Your task to perform on an android device: Look up the new steph curry shoes Image 0: 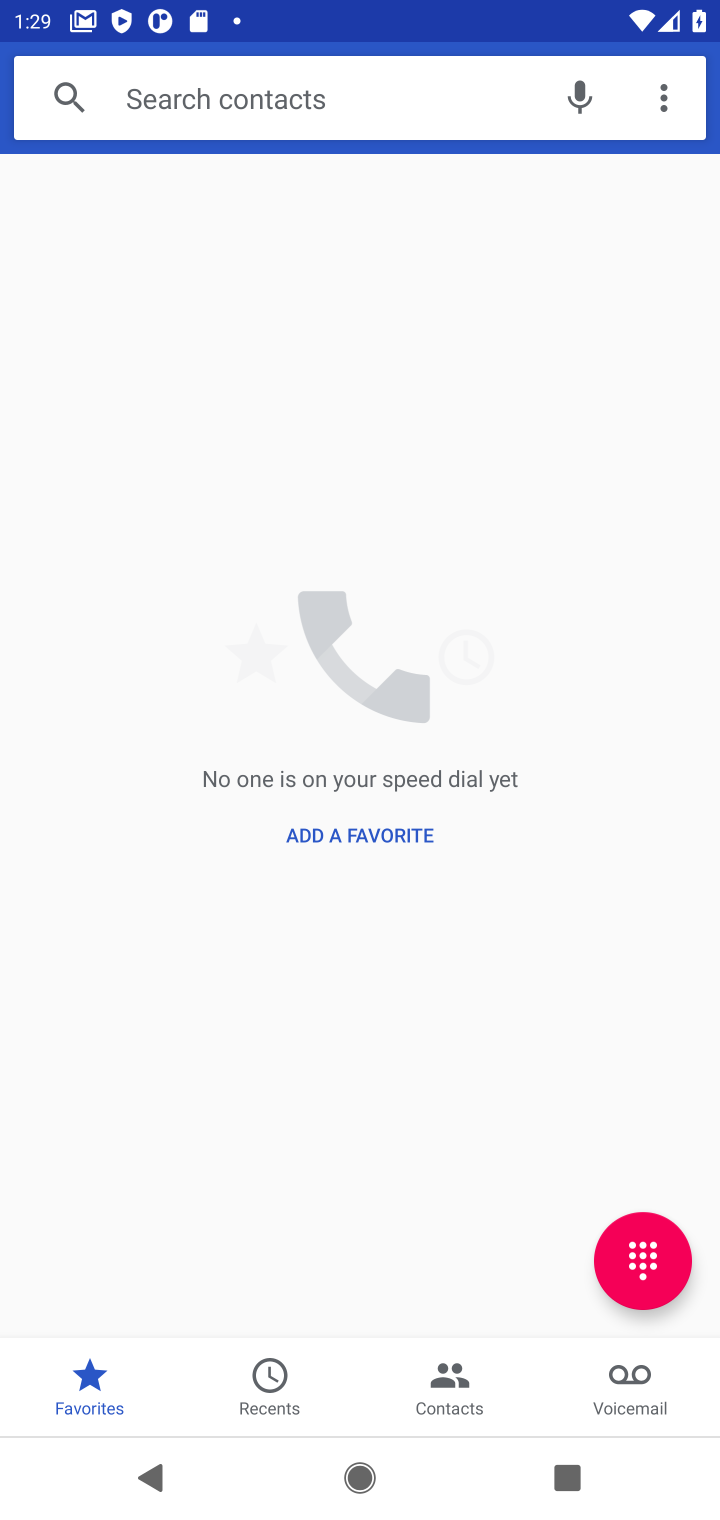
Step 0: press home button
Your task to perform on an android device: Look up the new steph curry shoes Image 1: 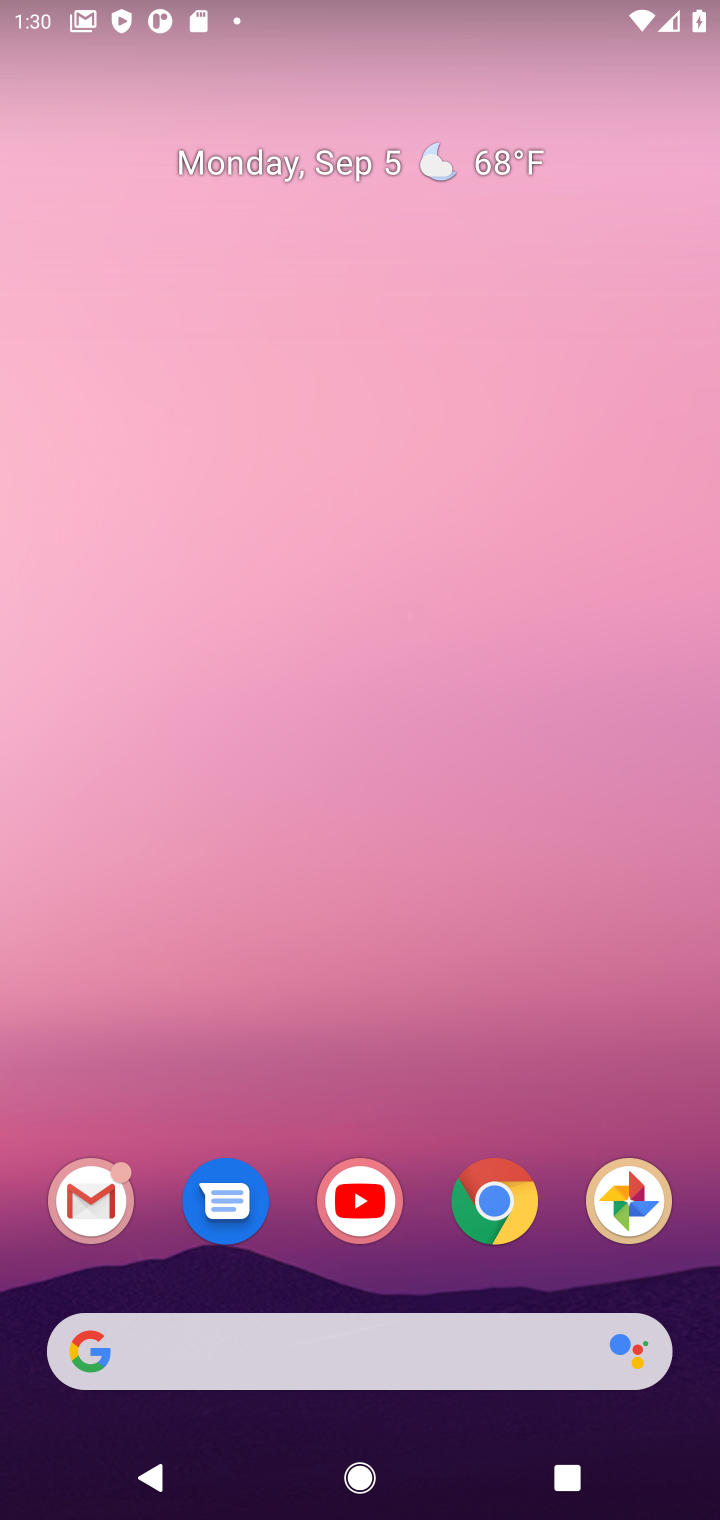
Step 1: click (490, 1193)
Your task to perform on an android device: Look up the new steph curry shoes Image 2: 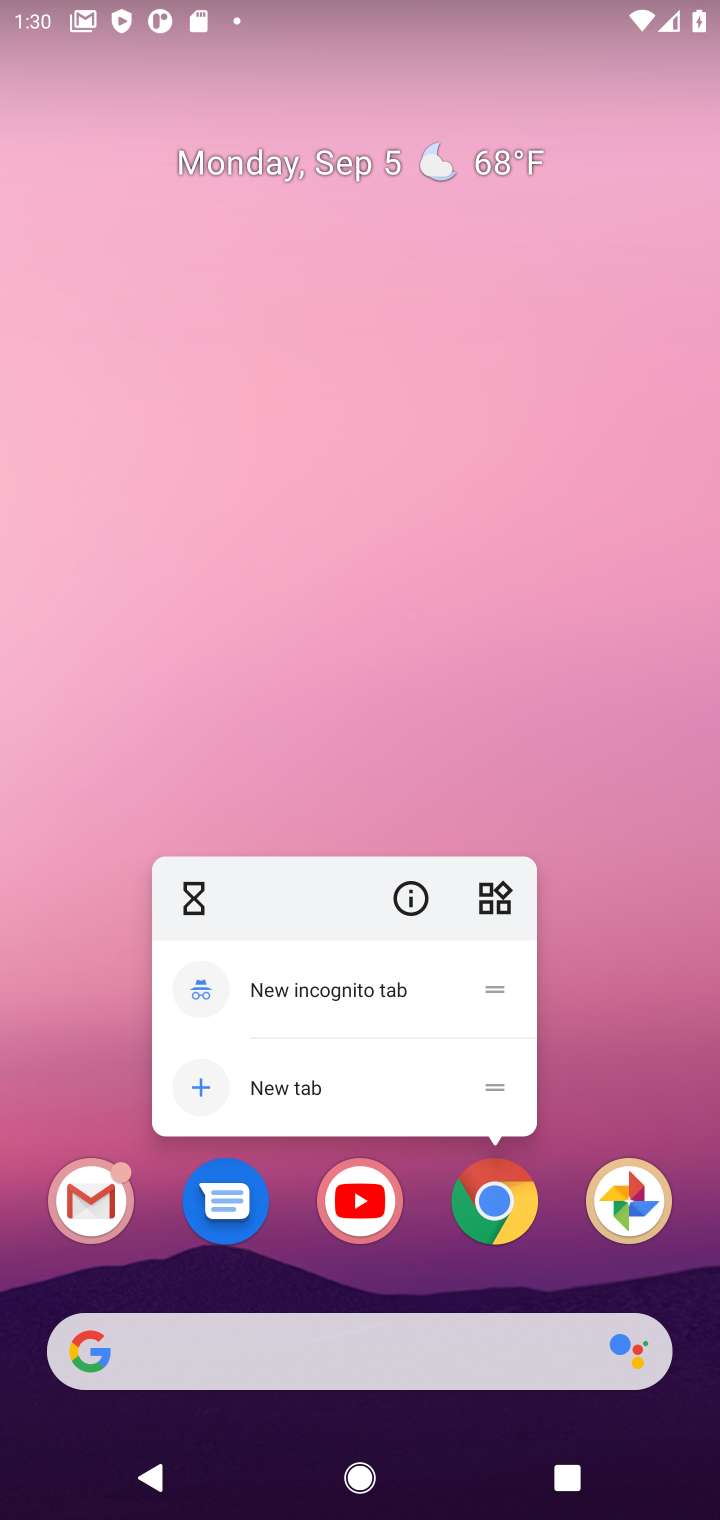
Step 2: click (491, 1192)
Your task to perform on an android device: Look up the new steph curry shoes Image 3: 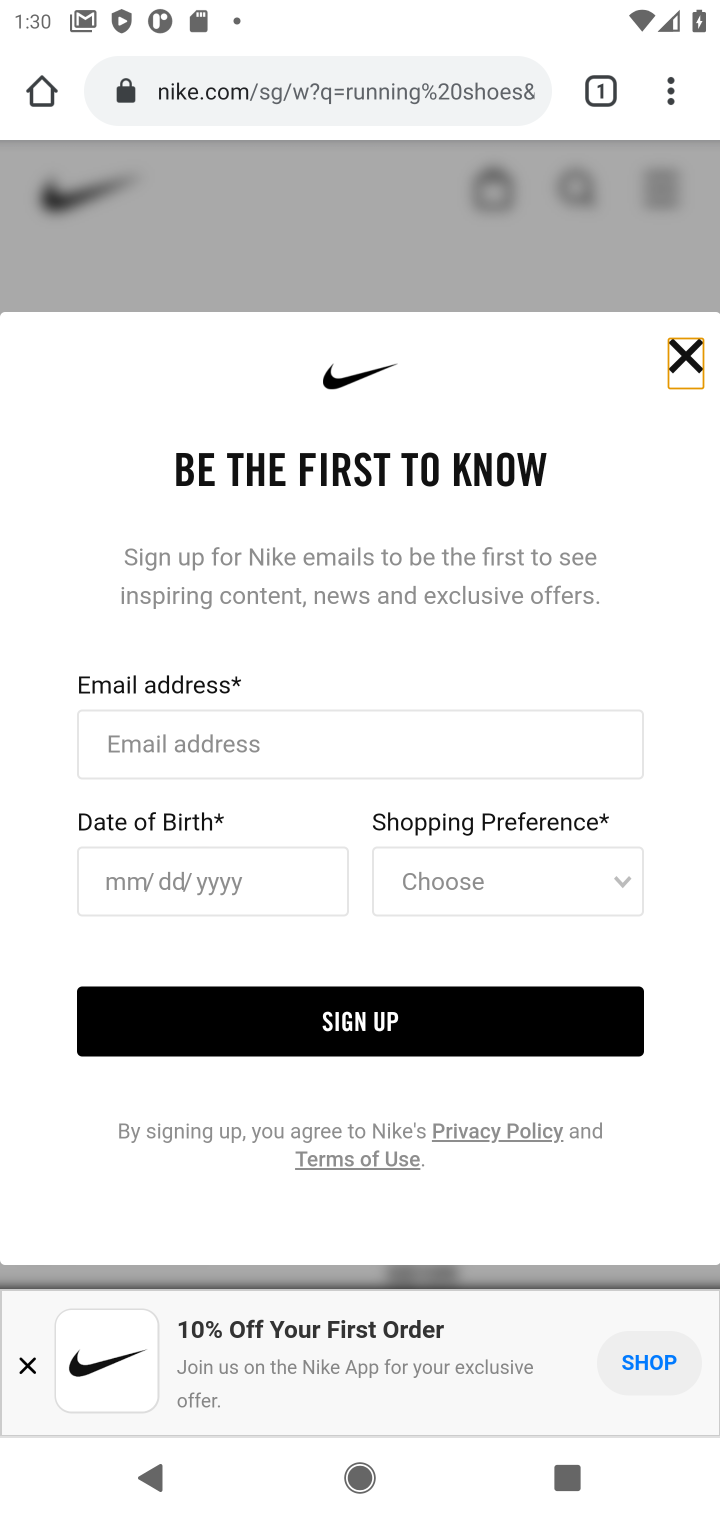
Step 3: click (379, 81)
Your task to perform on an android device: Look up the new steph curry shoes Image 4: 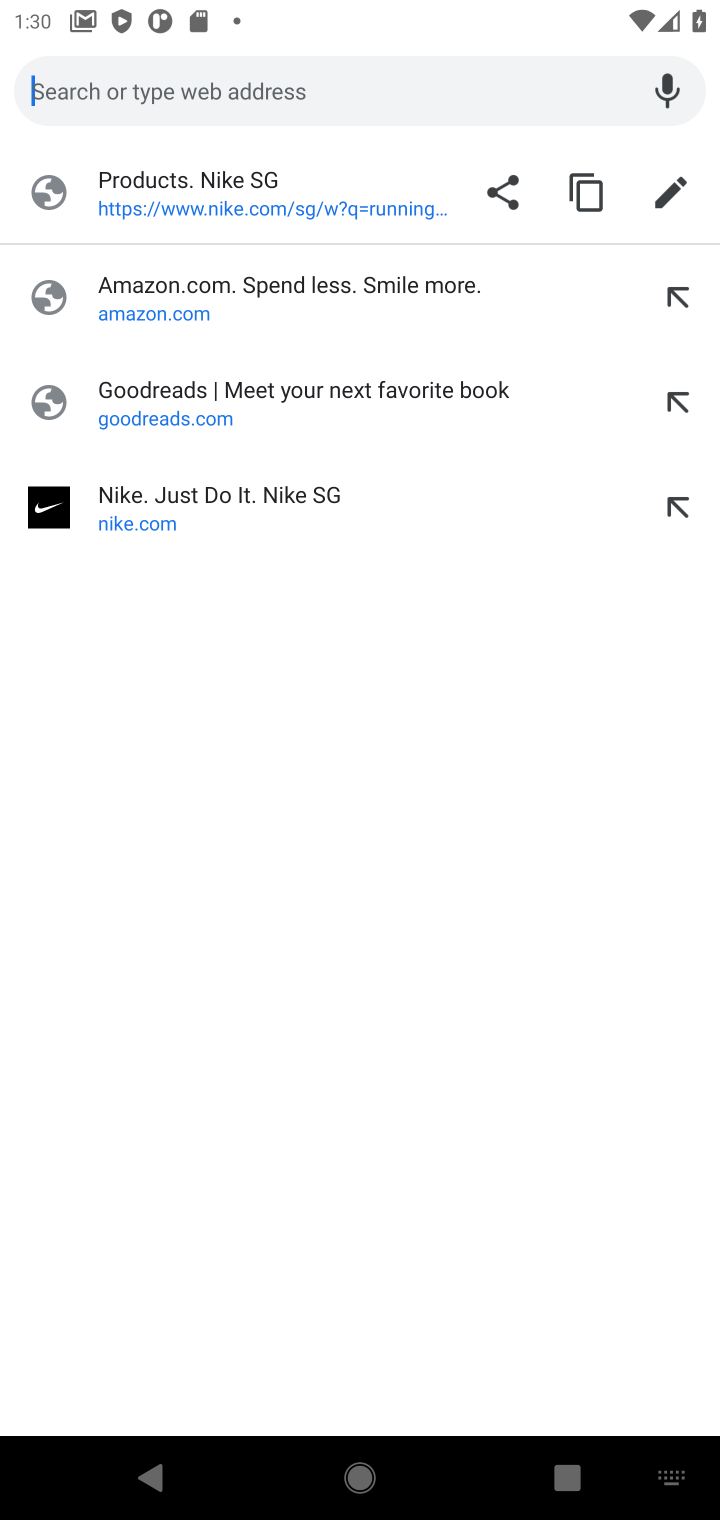
Step 4: type "new steph curry shoes"
Your task to perform on an android device: Look up the new steph curry shoes Image 5: 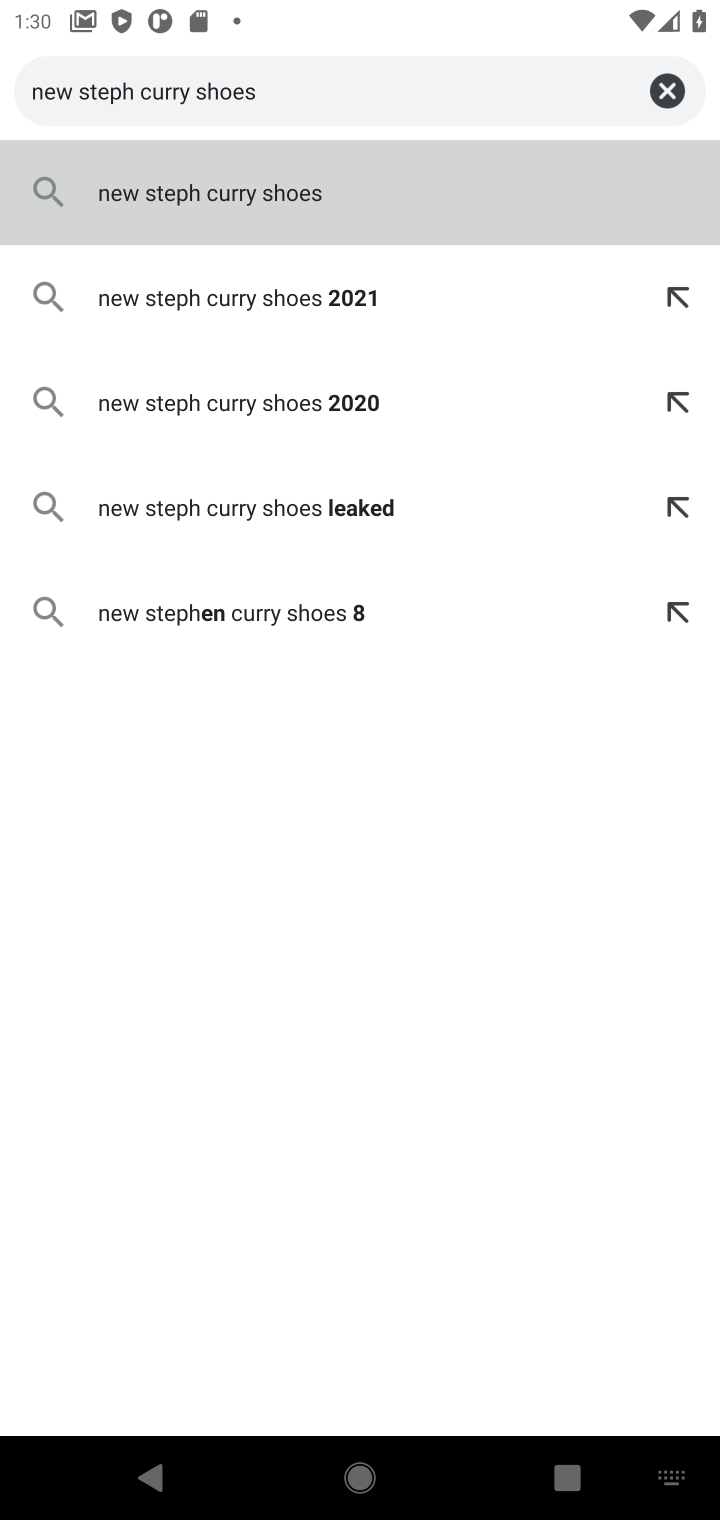
Step 5: press enter
Your task to perform on an android device: Look up the new steph curry shoes Image 6: 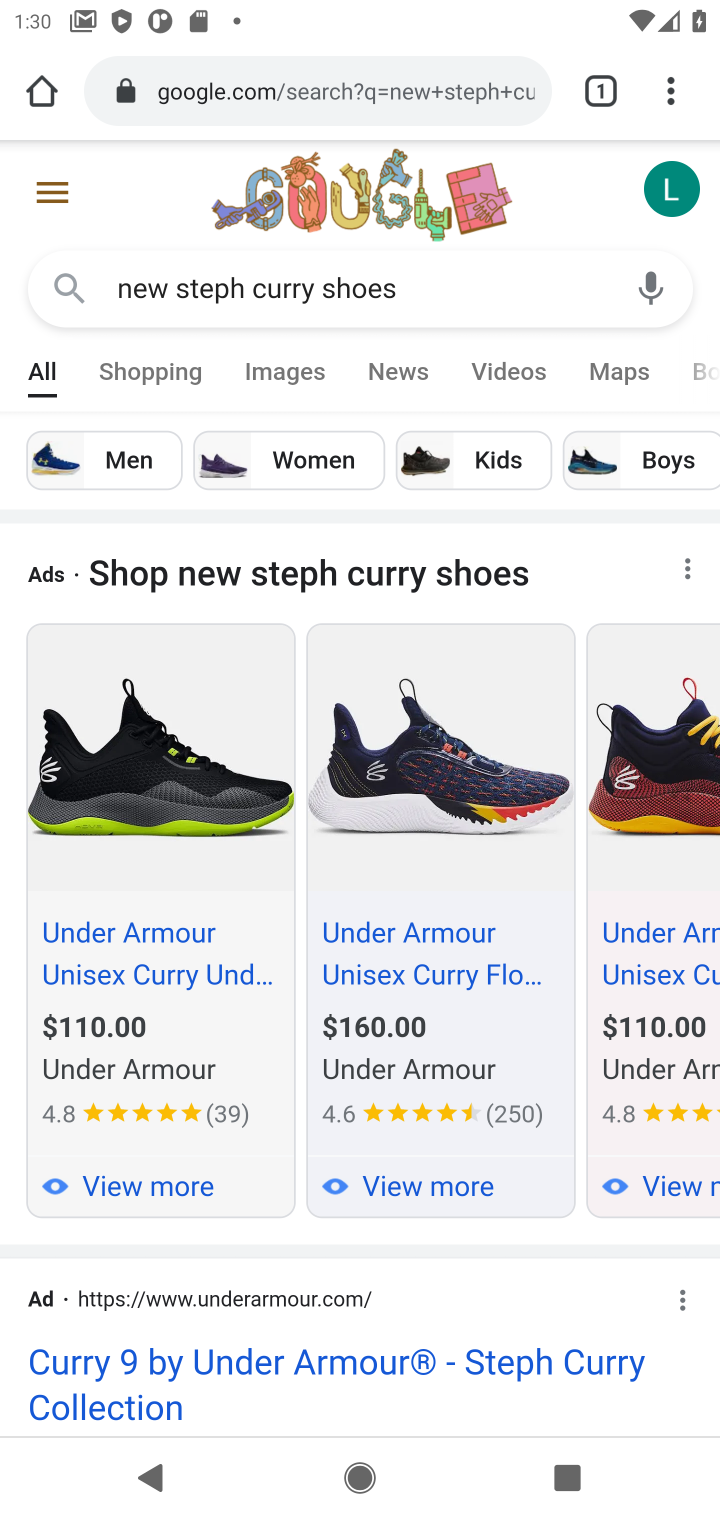
Step 6: drag from (513, 859) to (611, 453)
Your task to perform on an android device: Look up the new steph curry shoes Image 7: 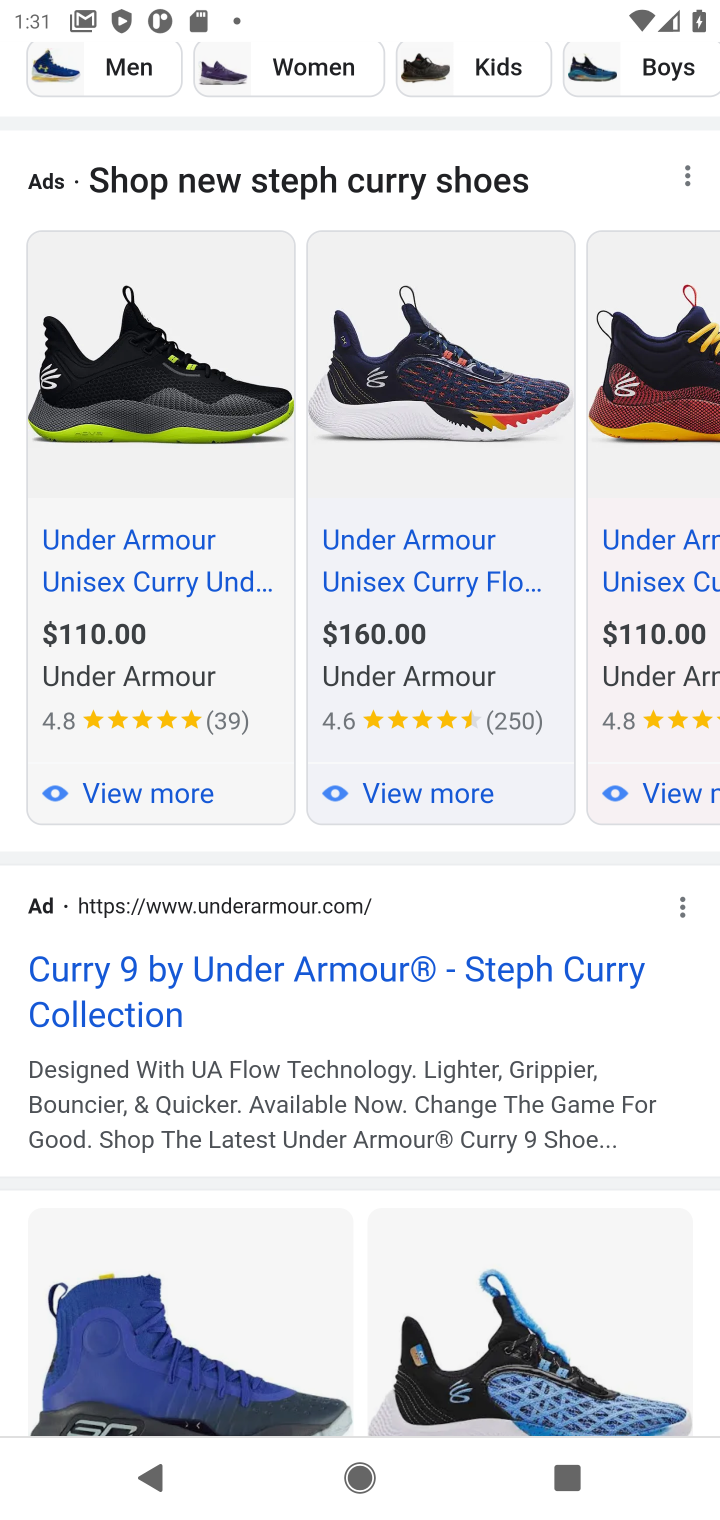
Step 7: click (442, 562)
Your task to perform on an android device: Look up the new steph curry shoes Image 8: 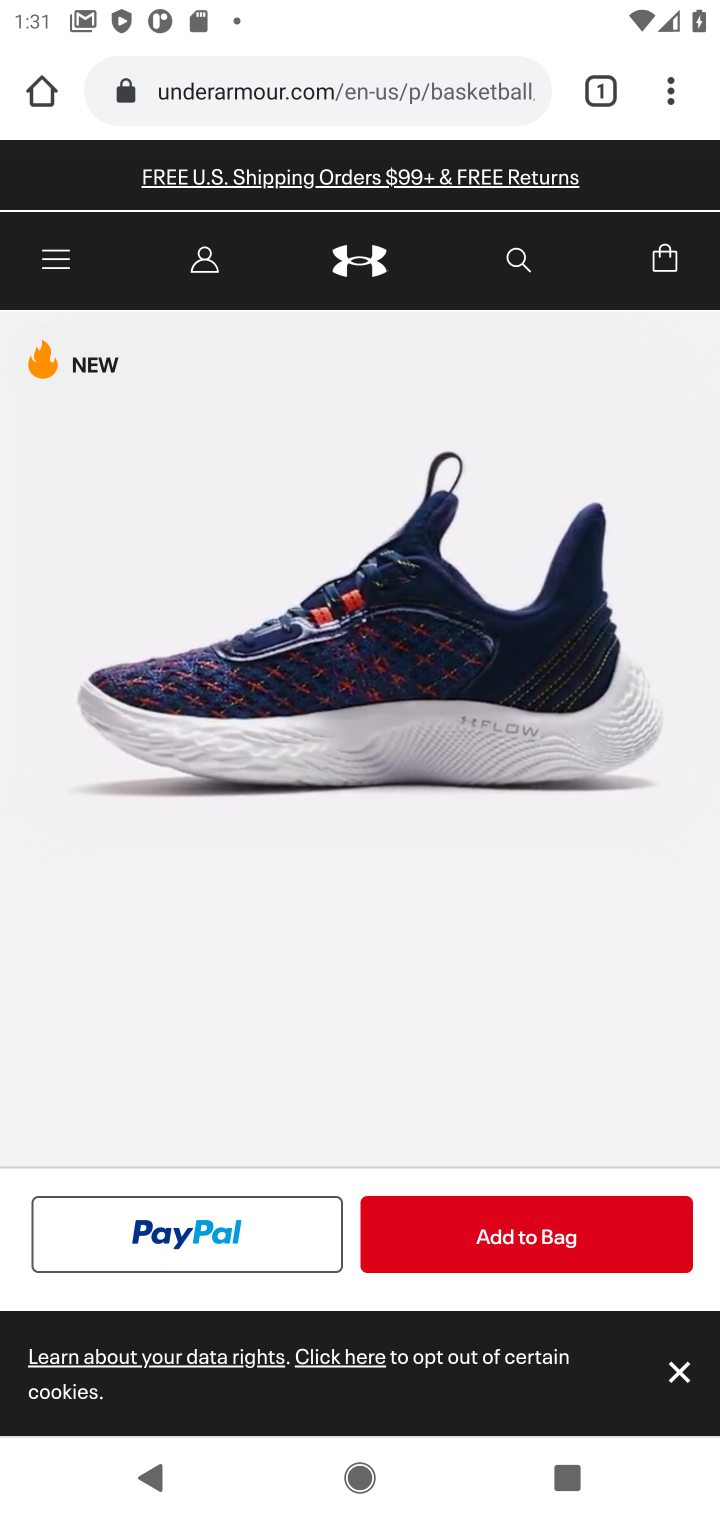
Step 8: task complete